Your task to perform on an android device: Open Google Image 0: 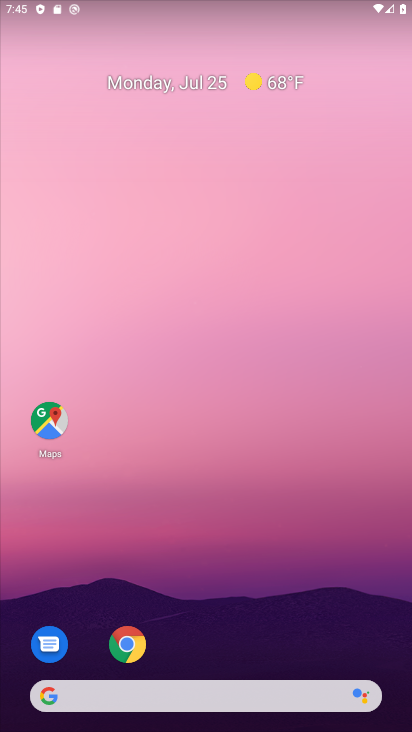
Step 0: drag from (262, 474) to (216, 56)
Your task to perform on an android device: Open Google Image 1: 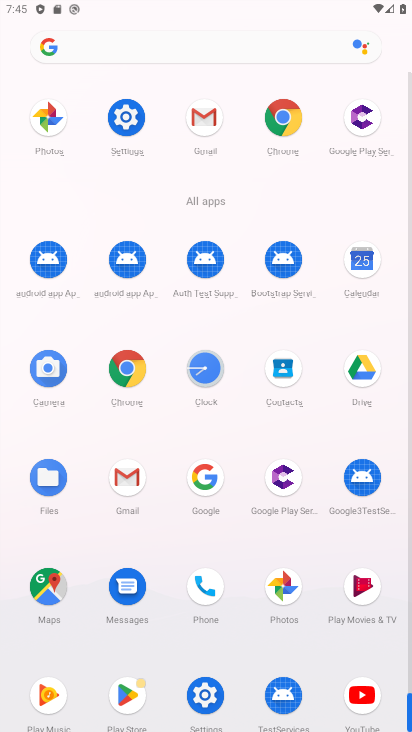
Step 1: click (207, 477)
Your task to perform on an android device: Open Google Image 2: 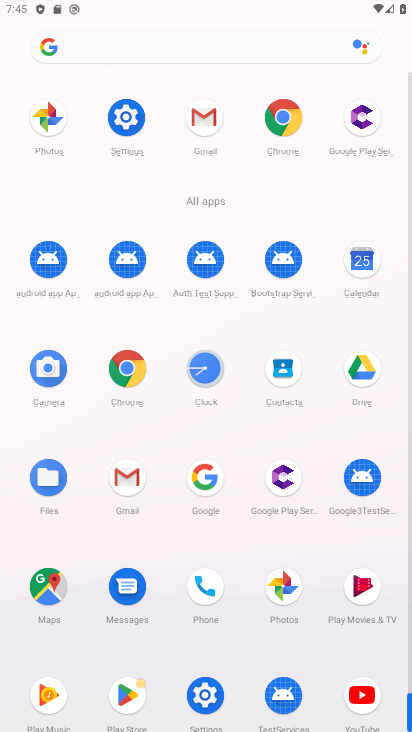
Step 2: click (205, 475)
Your task to perform on an android device: Open Google Image 3: 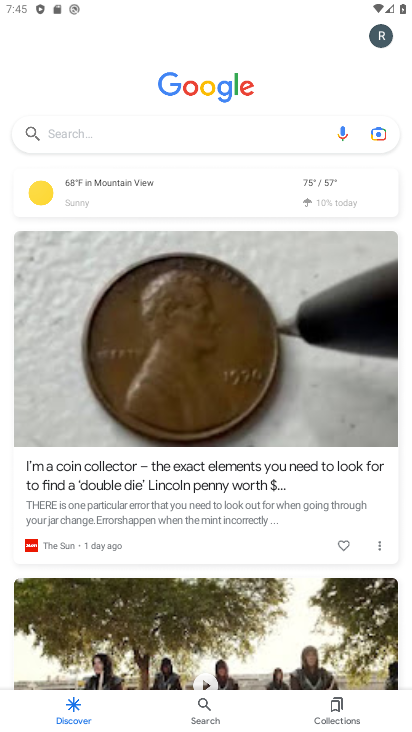
Step 3: task complete